Your task to perform on an android device: visit the assistant section in the google photos Image 0: 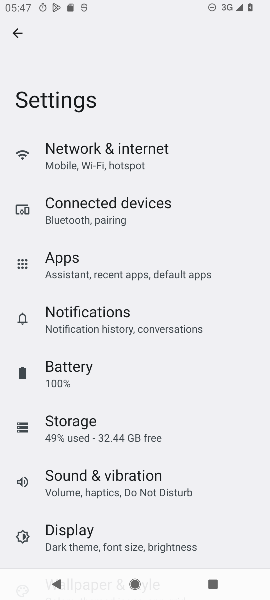
Step 0: press home button
Your task to perform on an android device: visit the assistant section in the google photos Image 1: 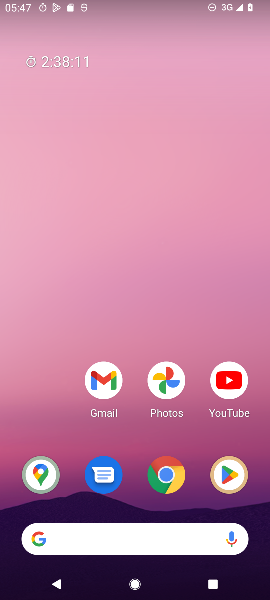
Step 1: drag from (60, 431) to (56, 175)
Your task to perform on an android device: visit the assistant section in the google photos Image 2: 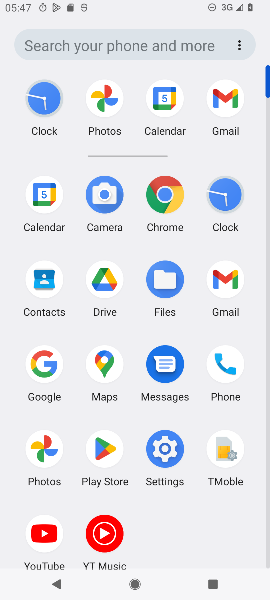
Step 2: click (45, 446)
Your task to perform on an android device: visit the assistant section in the google photos Image 3: 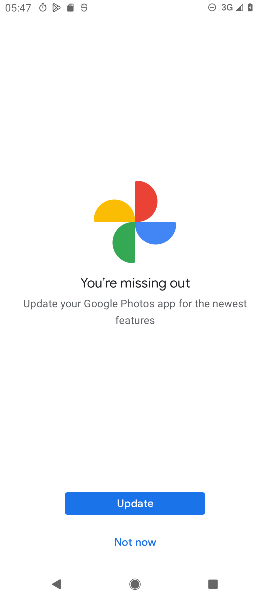
Step 3: click (140, 540)
Your task to perform on an android device: visit the assistant section in the google photos Image 4: 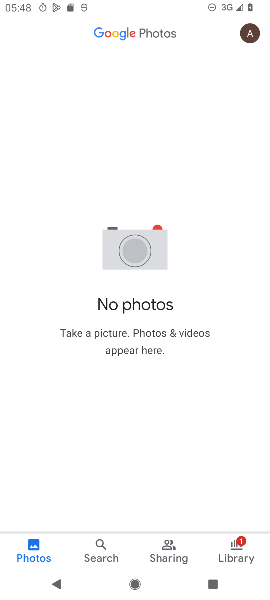
Step 4: click (245, 551)
Your task to perform on an android device: visit the assistant section in the google photos Image 5: 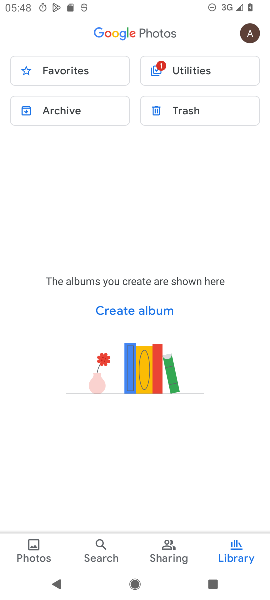
Step 5: task complete